Your task to perform on an android device: View the shopping cart on bestbuy. Search for "amazon basics triple a" on bestbuy, select the first entry, add it to the cart, then select checkout. Image 0: 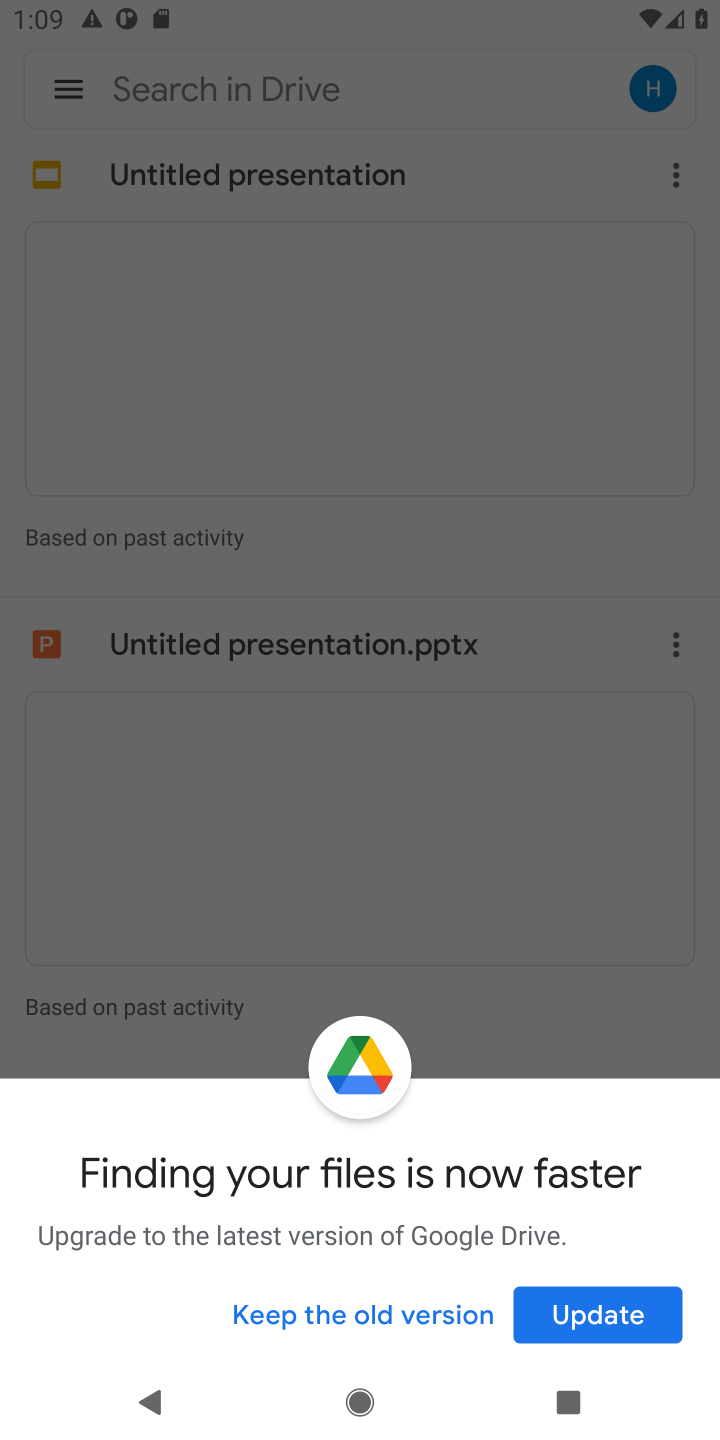
Step 0: press home button
Your task to perform on an android device: View the shopping cart on bestbuy. Search for "amazon basics triple a" on bestbuy, select the first entry, add it to the cart, then select checkout. Image 1: 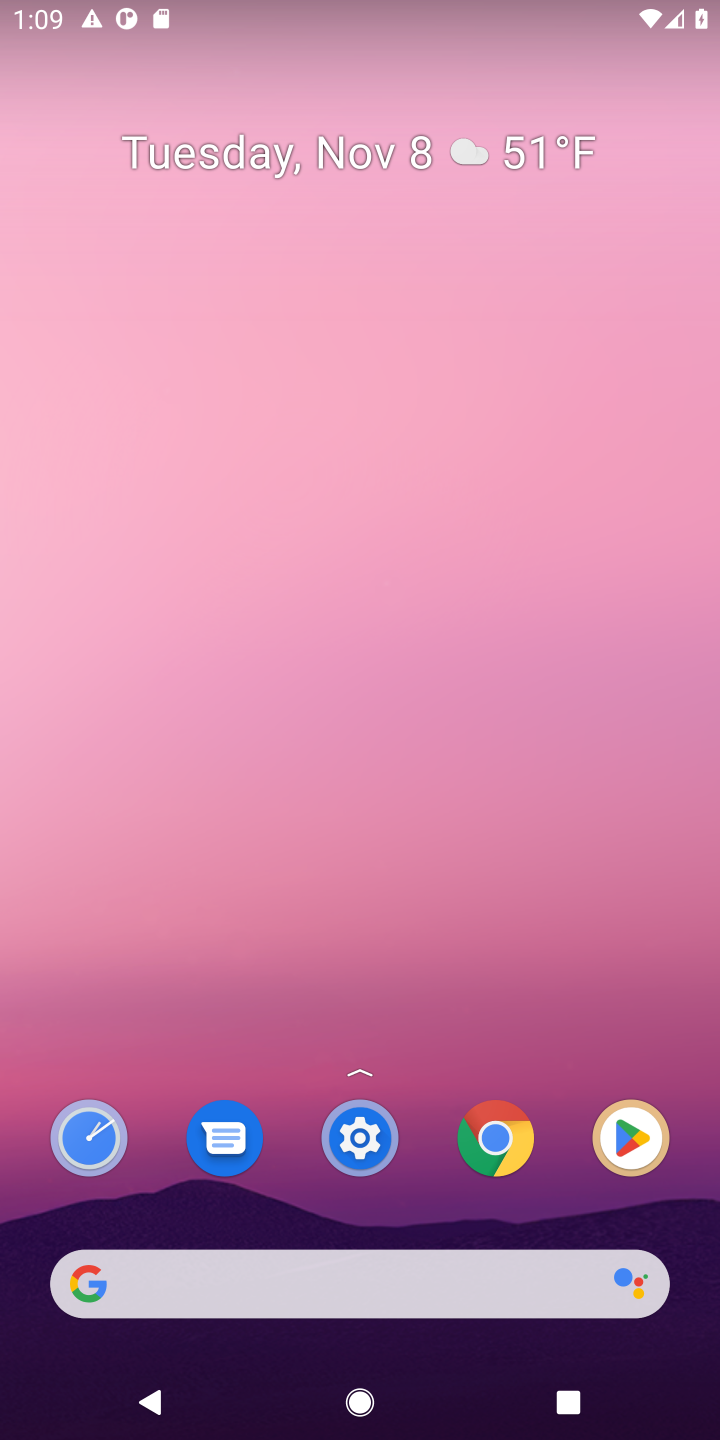
Step 1: click (324, 1311)
Your task to perform on an android device: View the shopping cart on bestbuy. Search for "amazon basics triple a" on bestbuy, select the first entry, add it to the cart, then select checkout. Image 2: 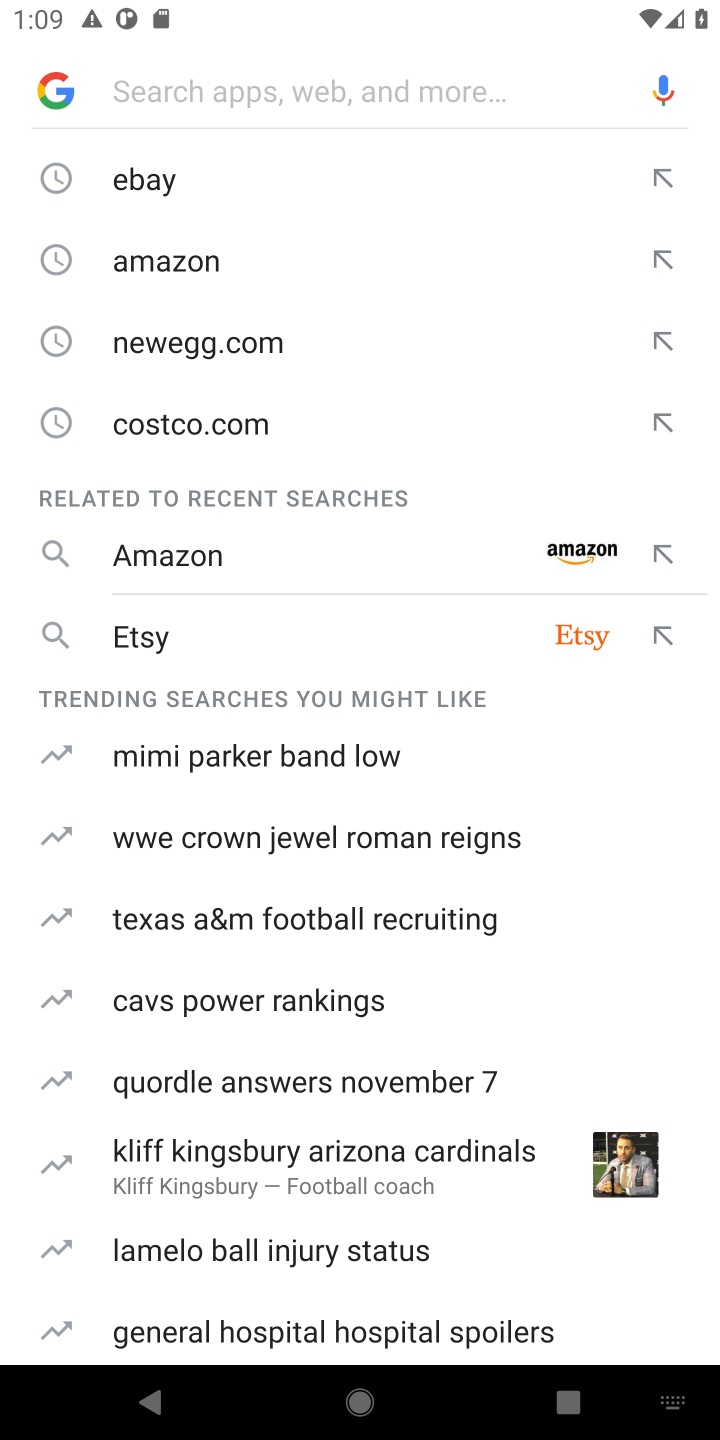
Step 2: type "bestbuy"
Your task to perform on an android device: View the shopping cart on bestbuy. Search for "amazon basics triple a" on bestbuy, select the first entry, add it to the cart, then select checkout. Image 3: 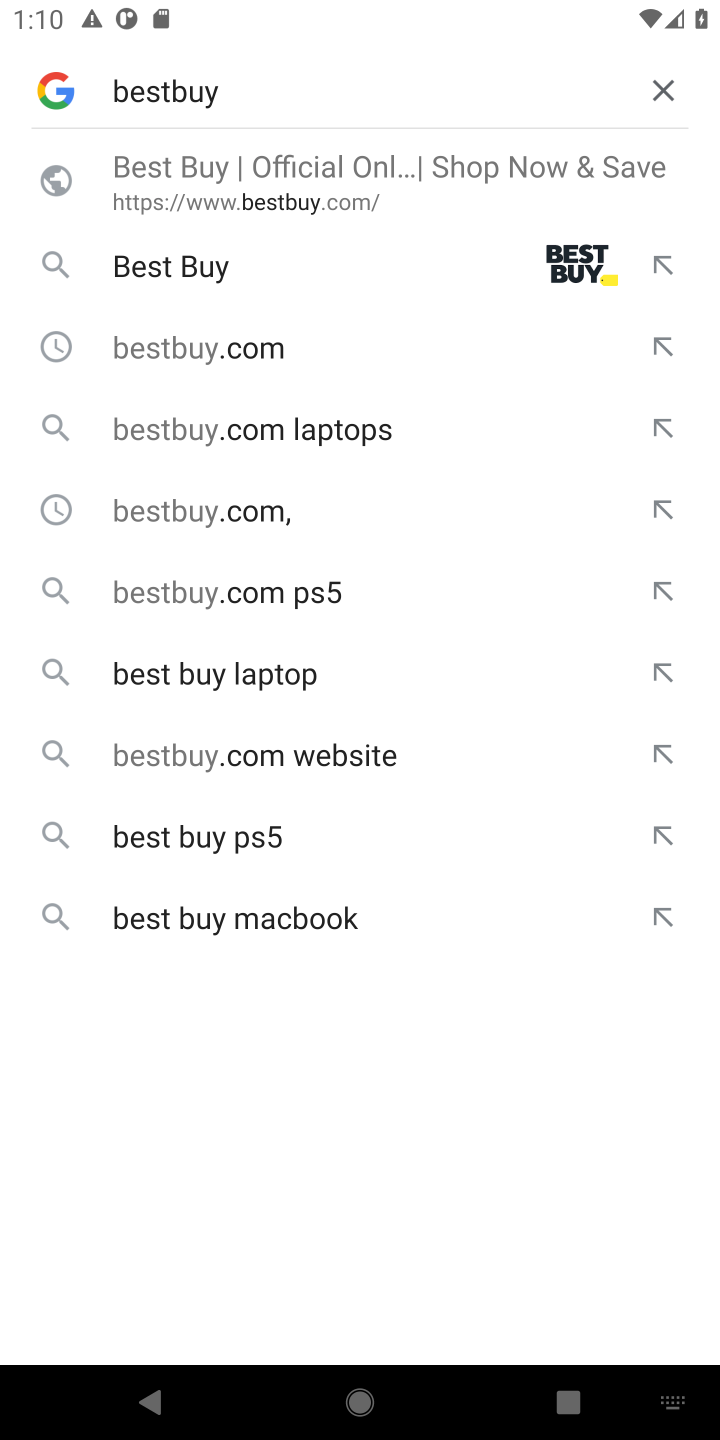
Step 3: click (407, 280)
Your task to perform on an android device: View the shopping cart on bestbuy. Search for "amazon basics triple a" on bestbuy, select the first entry, add it to the cart, then select checkout. Image 4: 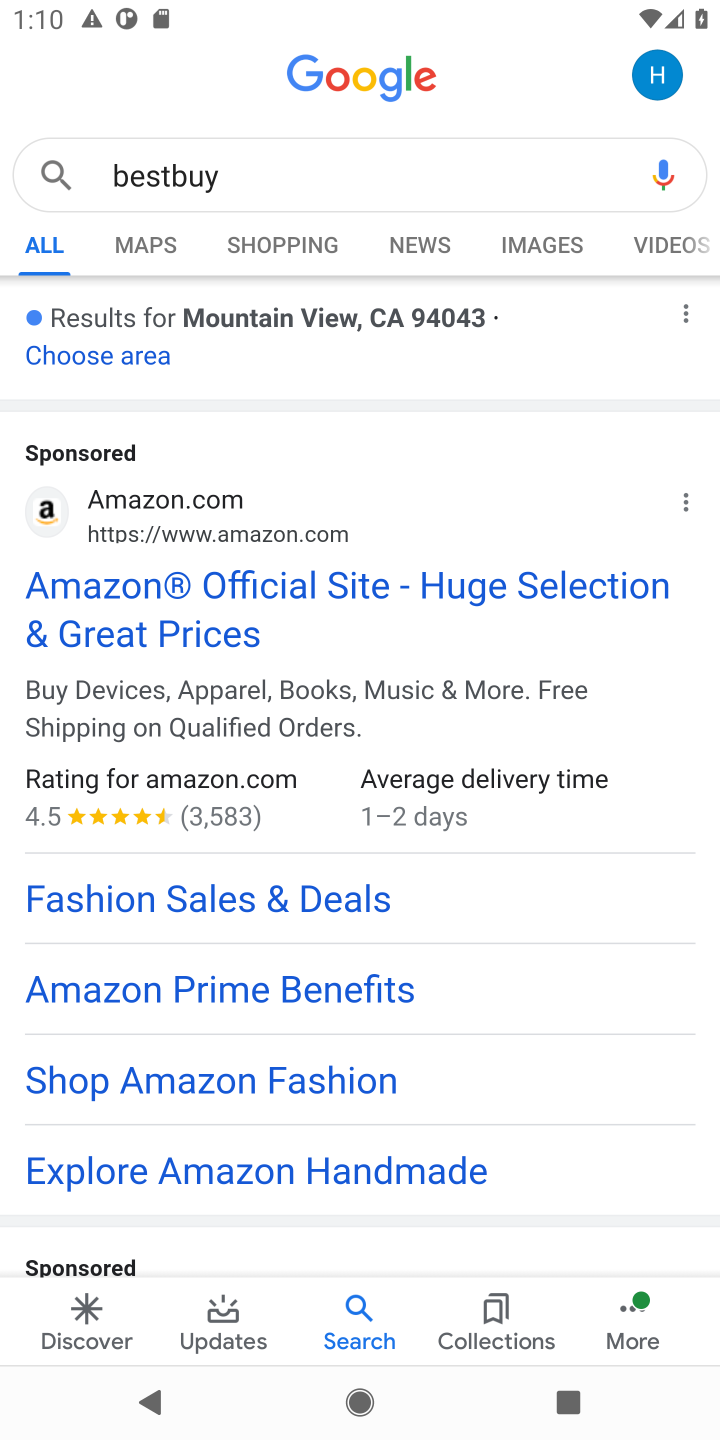
Step 4: click (207, 596)
Your task to perform on an android device: View the shopping cart on bestbuy. Search for "amazon basics triple a" on bestbuy, select the first entry, add it to the cart, then select checkout. Image 5: 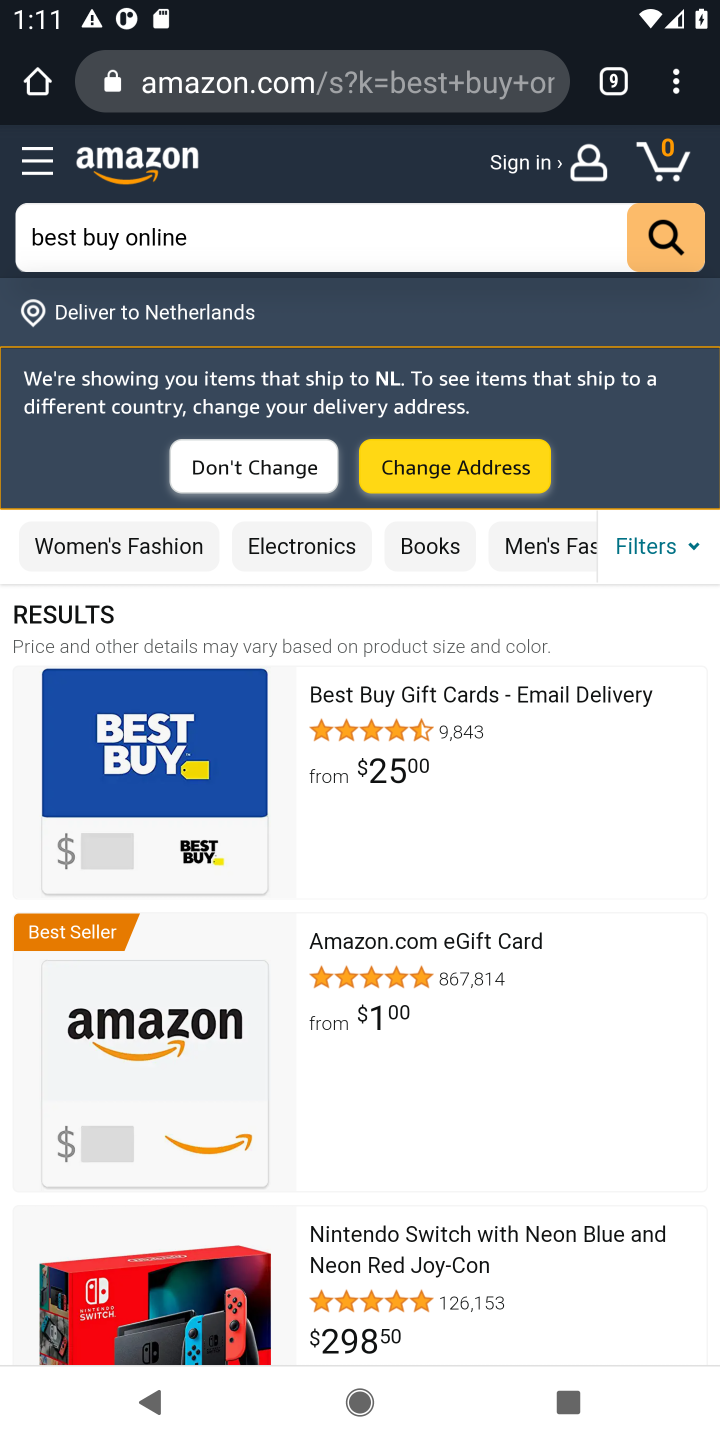
Step 5: task complete